Your task to perform on an android device: Go to Maps Image 0: 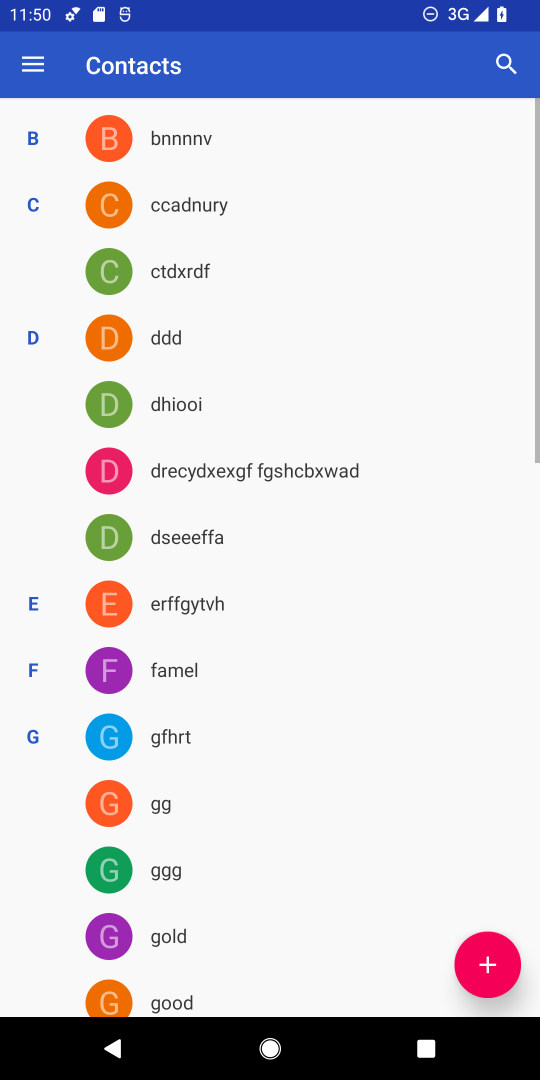
Step 0: press home button
Your task to perform on an android device: Go to Maps Image 1: 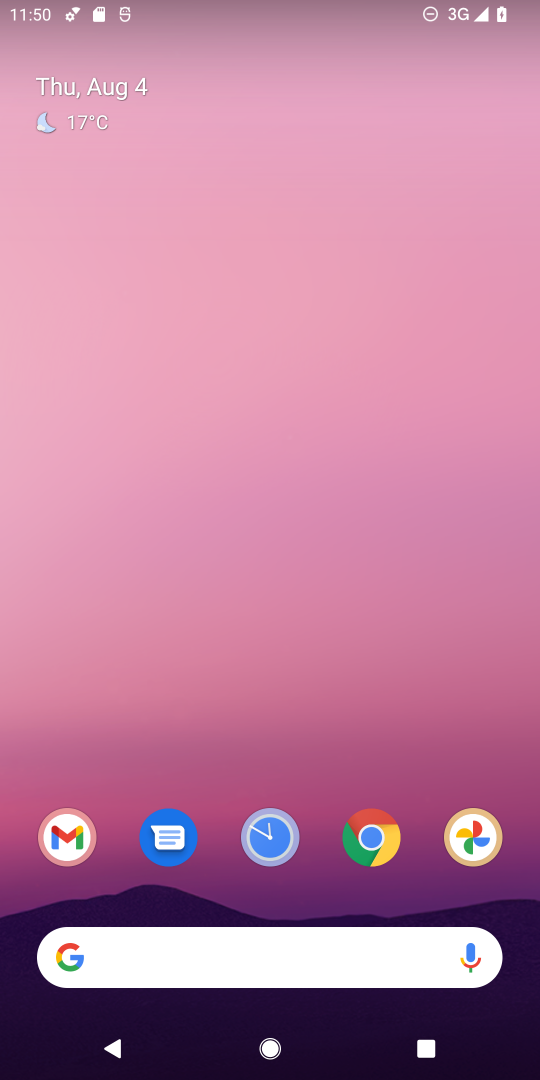
Step 1: drag from (451, 897) to (138, 66)
Your task to perform on an android device: Go to Maps Image 2: 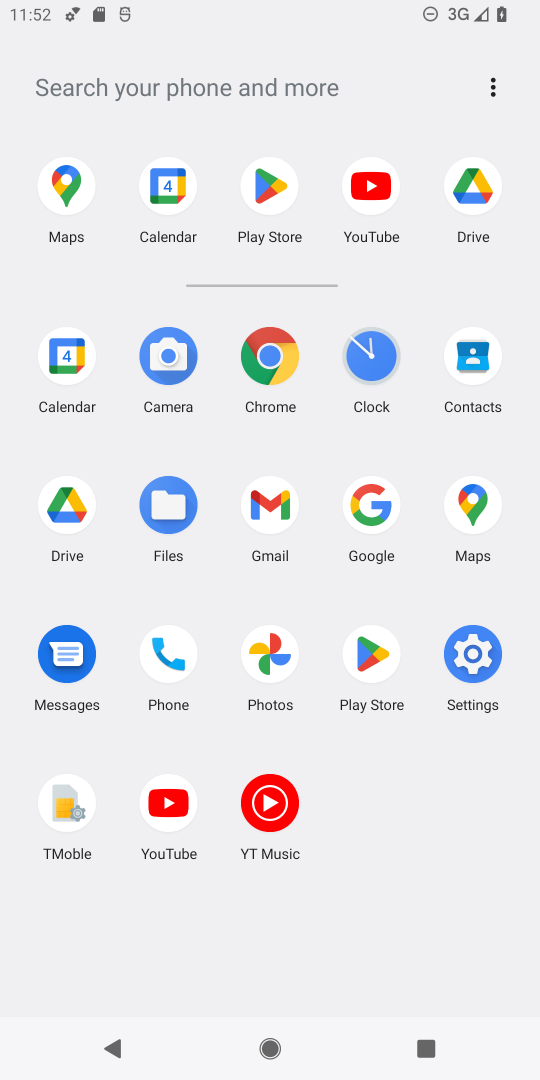
Step 2: click (468, 495)
Your task to perform on an android device: Go to Maps Image 3: 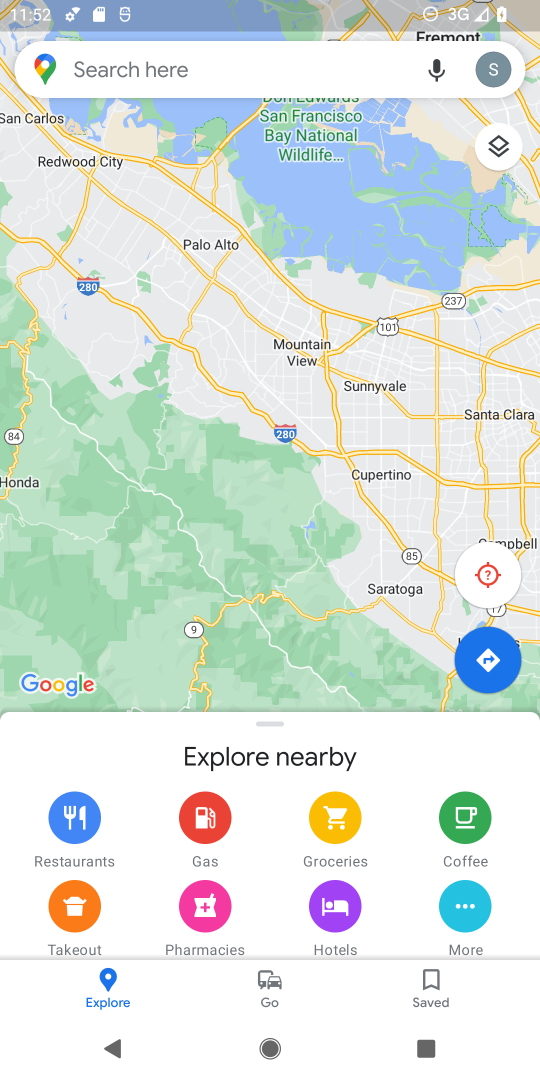
Step 3: task complete